Your task to perform on an android device: search for starred emails in the gmail app Image 0: 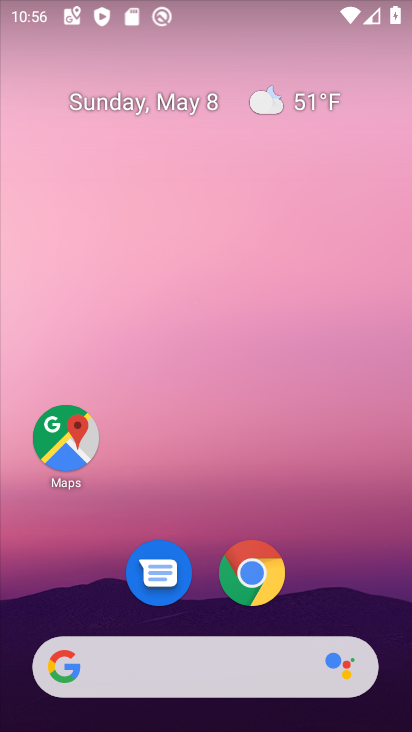
Step 0: drag from (173, 636) to (164, 111)
Your task to perform on an android device: search for starred emails in the gmail app Image 1: 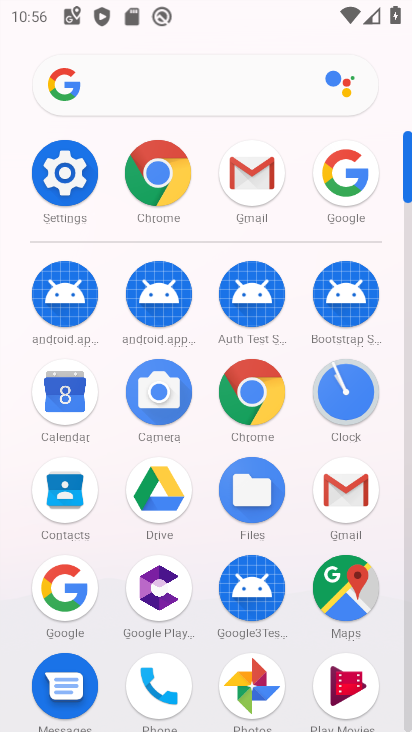
Step 1: click (270, 182)
Your task to perform on an android device: search for starred emails in the gmail app Image 2: 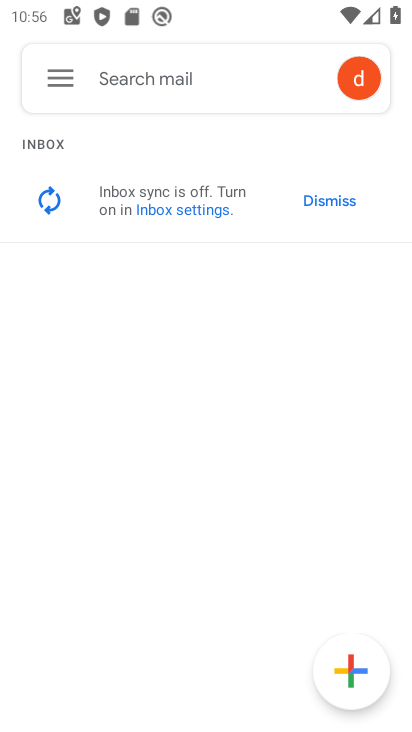
Step 2: click (55, 83)
Your task to perform on an android device: search for starred emails in the gmail app Image 3: 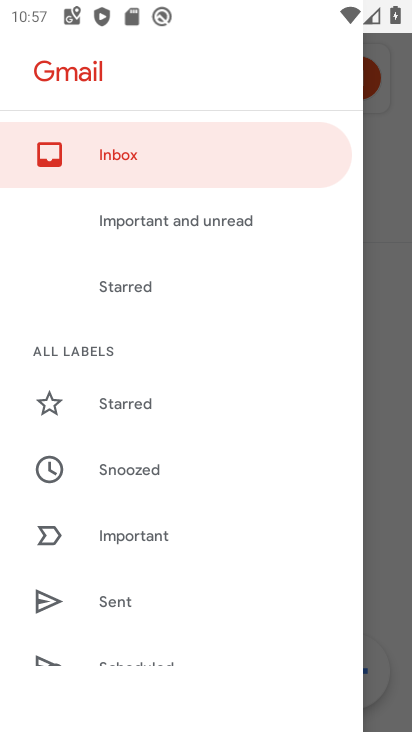
Step 3: click (139, 408)
Your task to perform on an android device: search for starred emails in the gmail app Image 4: 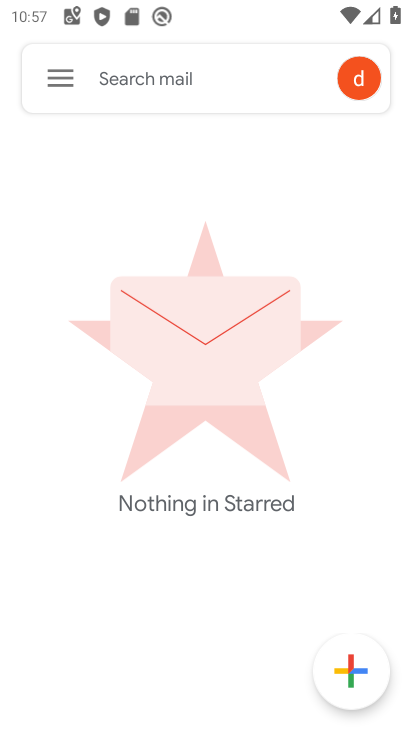
Step 4: task complete